Your task to perform on an android device: Search for a new eyeliner Image 0: 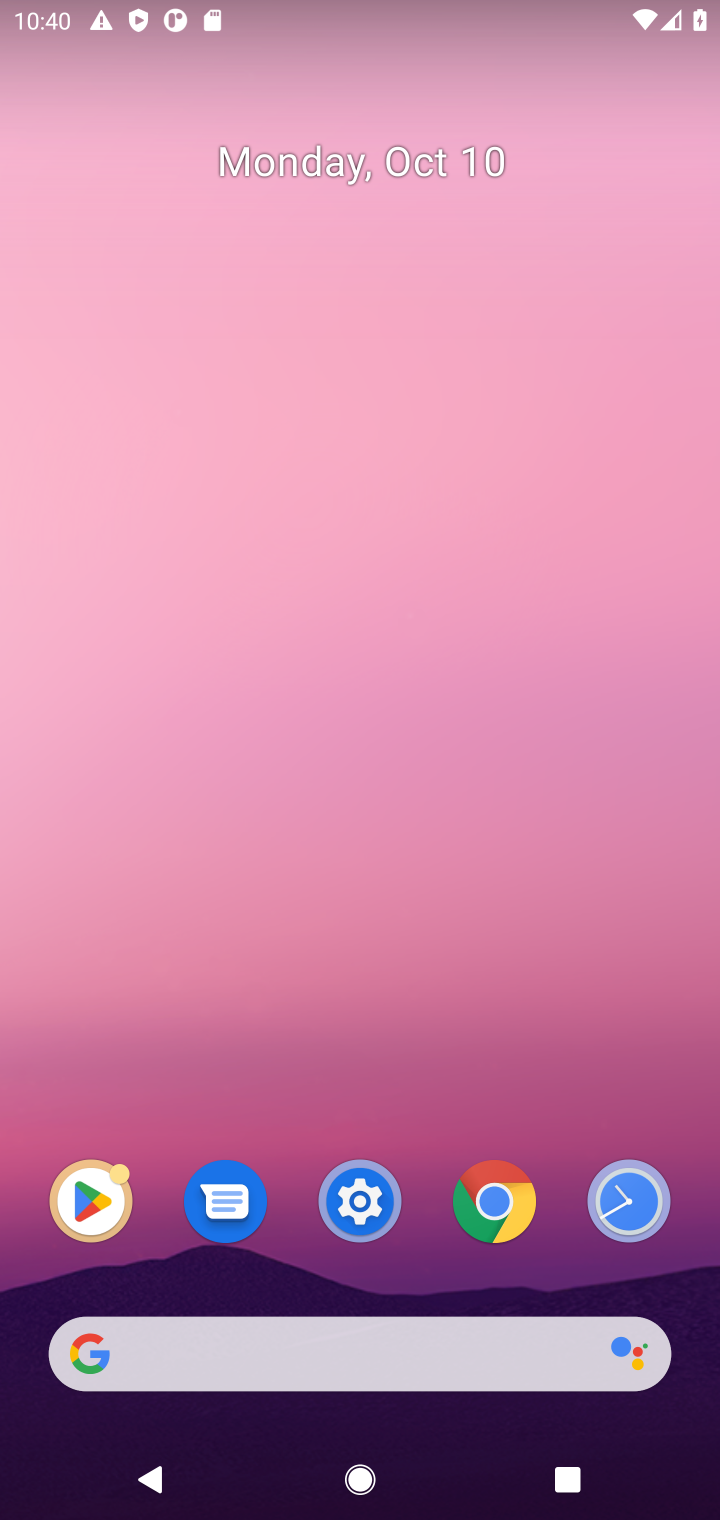
Step 0: click (84, 1348)
Your task to perform on an android device: Search for a new eyeliner Image 1: 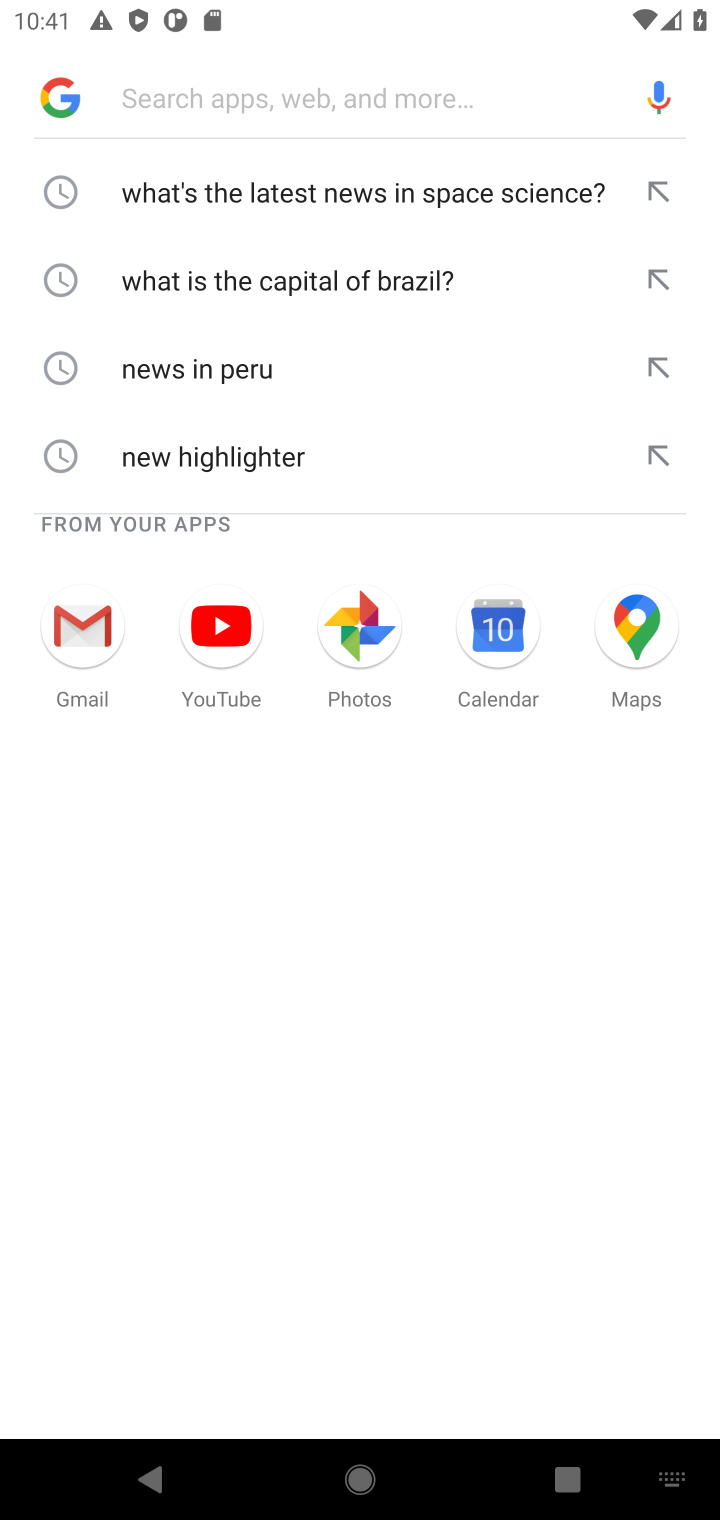
Step 1: type "new eyeliner"
Your task to perform on an android device: Search for a new eyeliner Image 2: 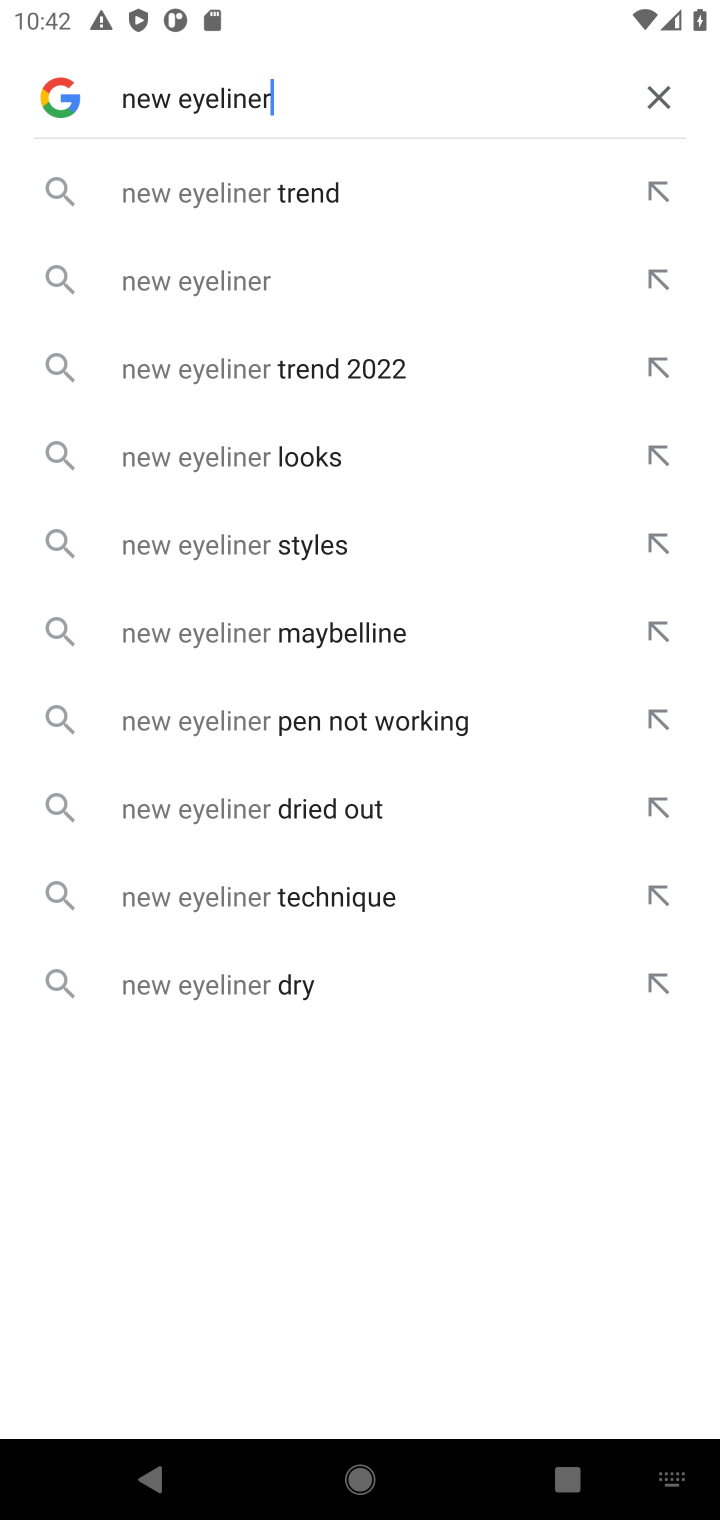
Step 2: click (218, 280)
Your task to perform on an android device: Search for a new eyeliner Image 3: 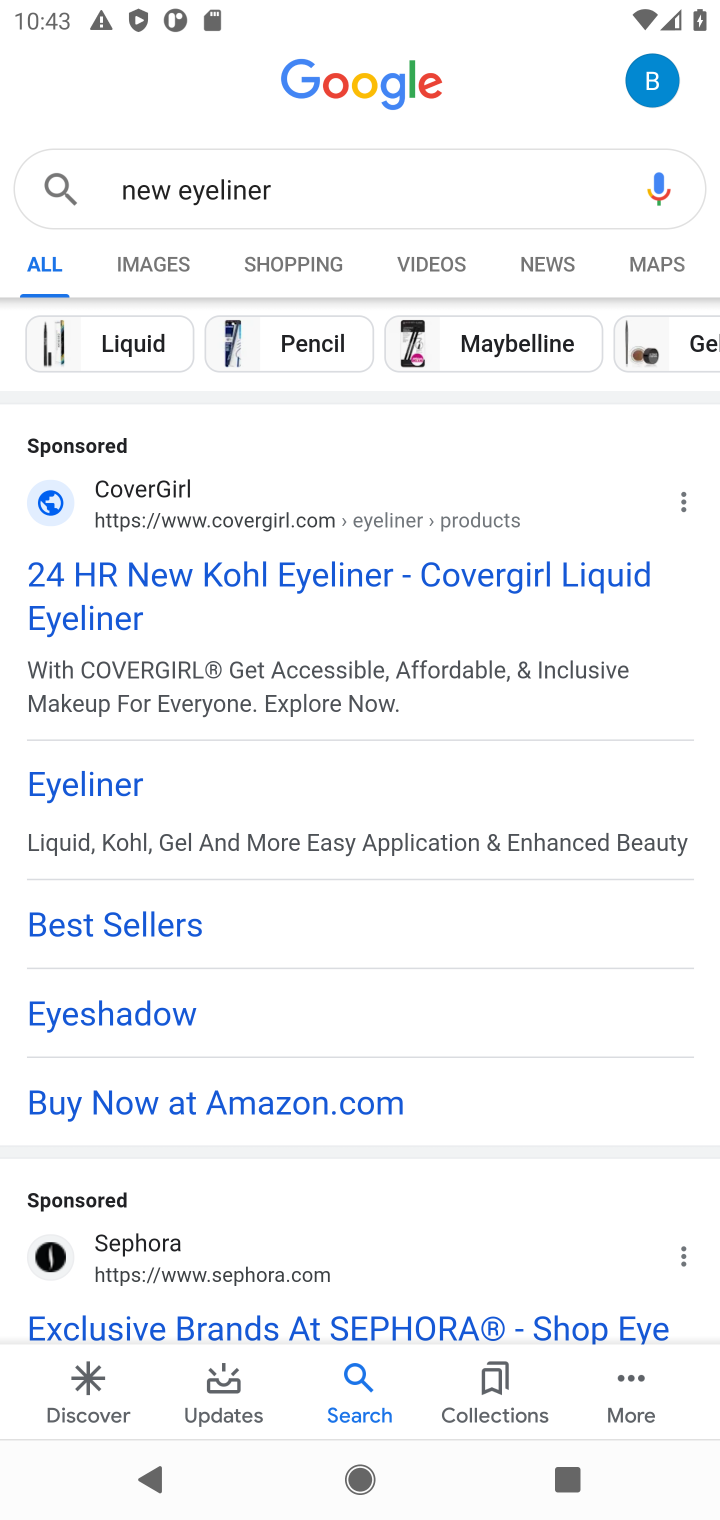
Step 3: click (240, 588)
Your task to perform on an android device: Search for a new eyeliner Image 4: 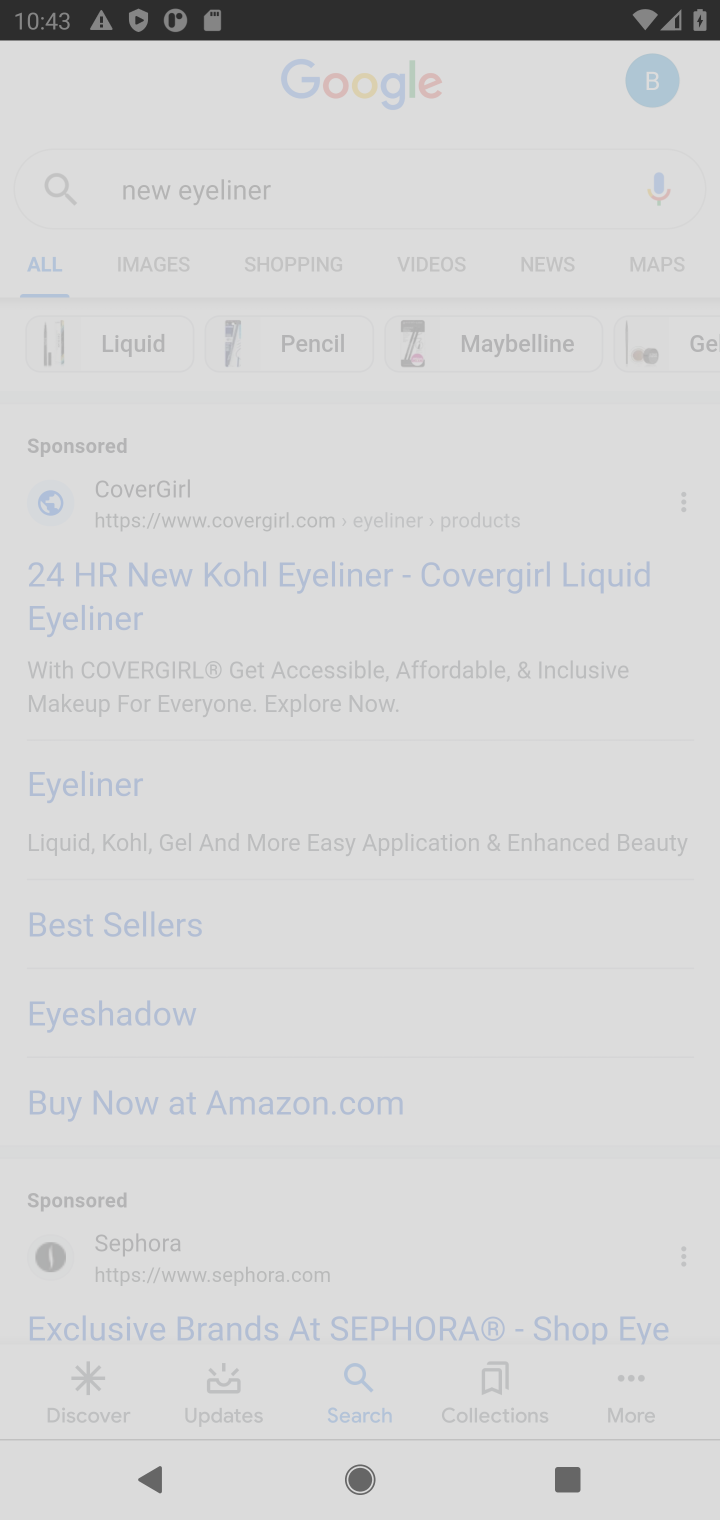
Step 4: task complete